Your task to perform on an android device: turn on javascript in the chrome app Image 0: 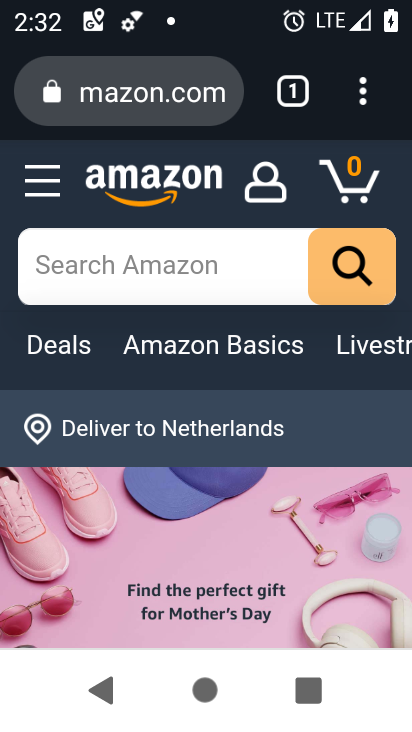
Step 0: click (354, 99)
Your task to perform on an android device: turn on javascript in the chrome app Image 1: 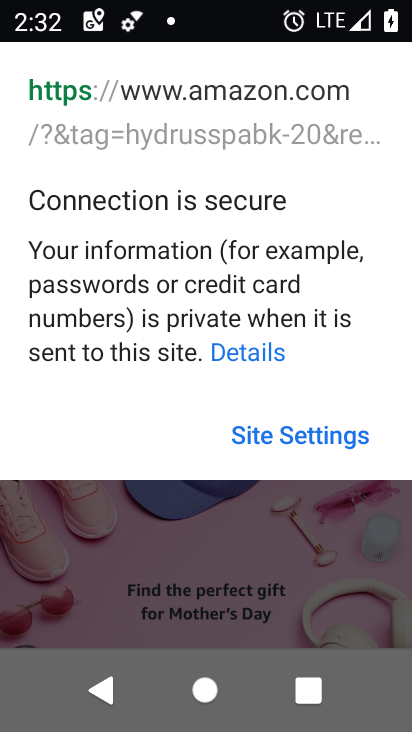
Step 1: click (211, 605)
Your task to perform on an android device: turn on javascript in the chrome app Image 2: 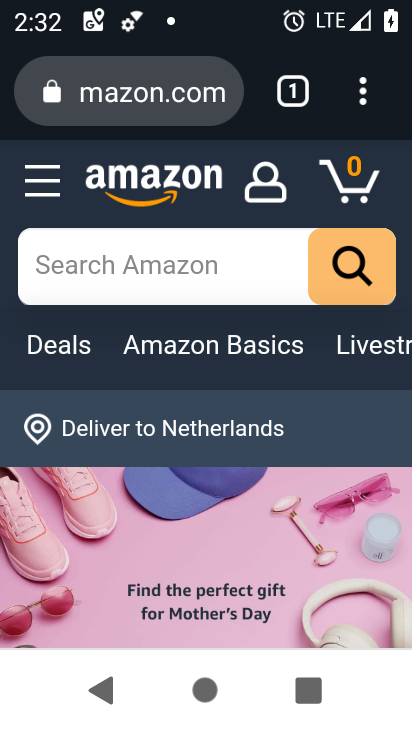
Step 2: click (351, 95)
Your task to perform on an android device: turn on javascript in the chrome app Image 3: 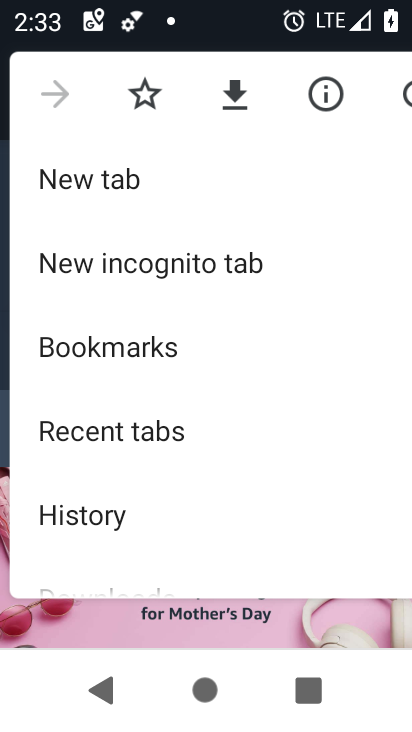
Step 3: drag from (197, 508) to (187, 328)
Your task to perform on an android device: turn on javascript in the chrome app Image 4: 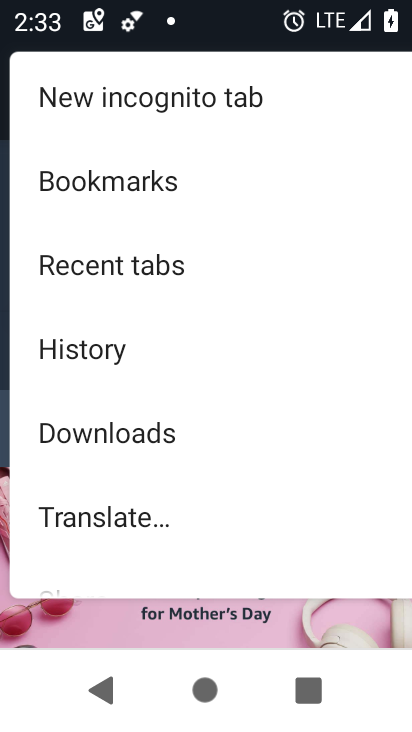
Step 4: drag from (153, 516) to (141, 378)
Your task to perform on an android device: turn on javascript in the chrome app Image 5: 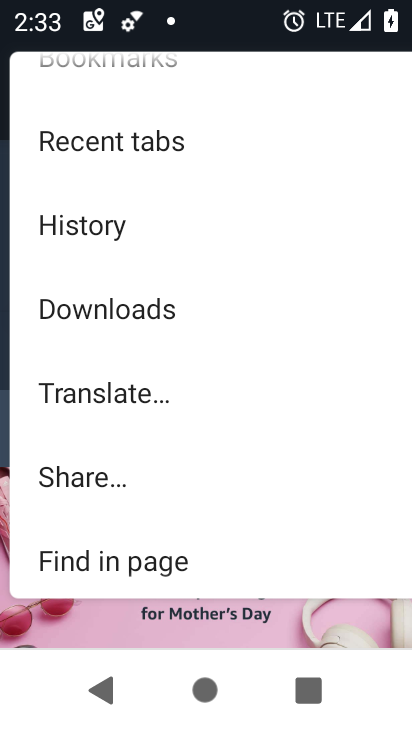
Step 5: drag from (158, 503) to (152, 384)
Your task to perform on an android device: turn on javascript in the chrome app Image 6: 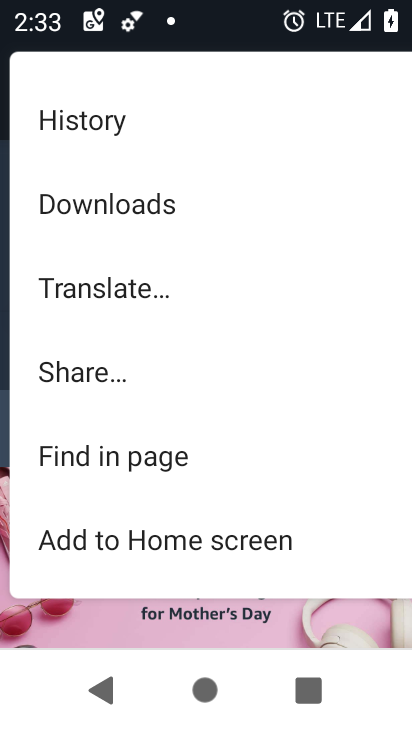
Step 6: drag from (150, 508) to (158, 398)
Your task to perform on an android device: turn on javascript in the chrome app Image 7: 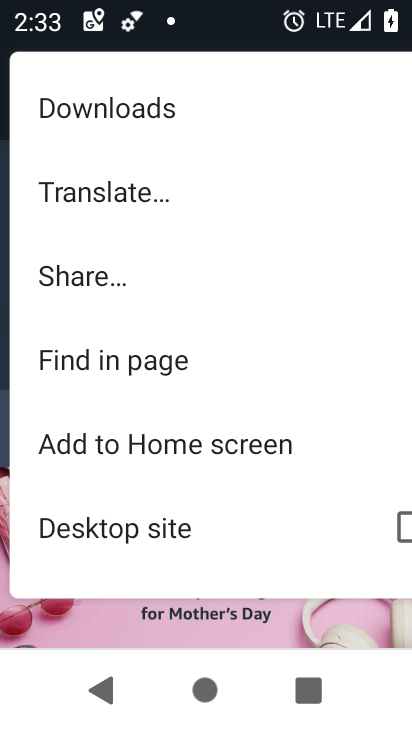
Step 7: drag from (165, 511) to (179, 411)
Your task to perform on an android device: turn on javascript in the chrome app Image 8: 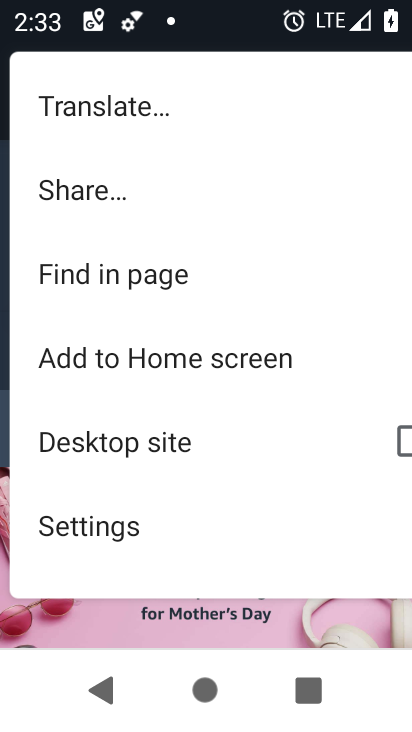
Step 8: click (157, 519)
Your task to perform on an android device: turn on javascript in the chrome app Image 9: 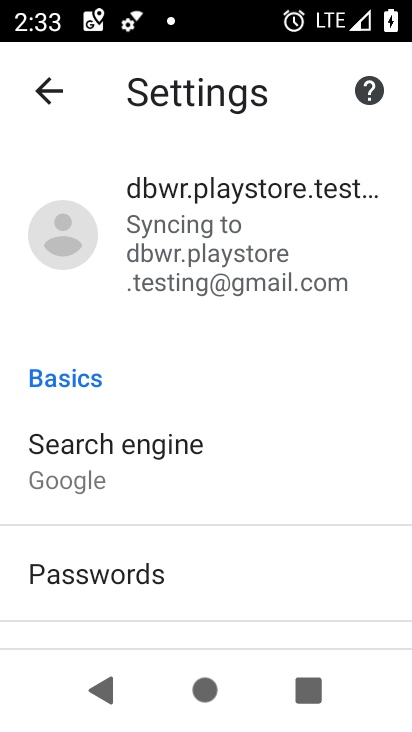
Step 9: drag from (163, 578) to (176, 405)
Your task to perform on an android device: turn on javascript in the chrome app Image 10: 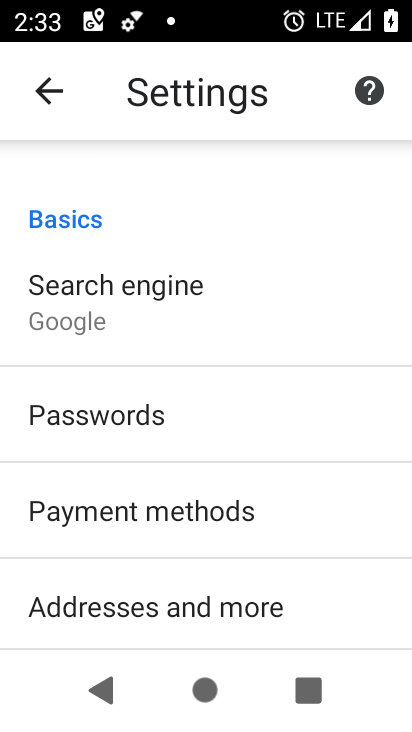
Step 10: drag from (130, 570) to (131, 413)
Your task to perform on an android device: turn on javascript in the chrome app Image 11: 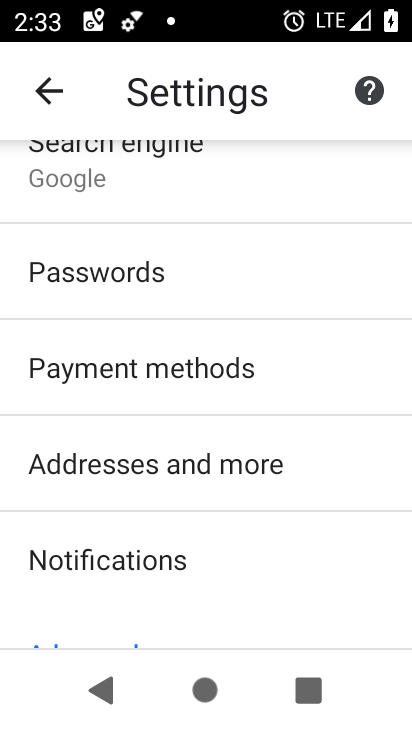
Step 11: drag from (151, 572) to (168, 416)
Your task to perform on an android device: turn on javascript in the chrome app Image 12: 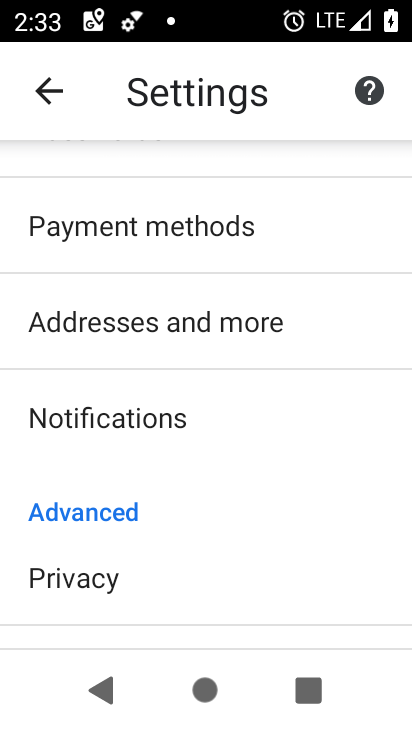
Step 12: drag from (159, 549) to (215, 381)
Your task to perform on an android device: turn on javascript in the chrome app Image 13: 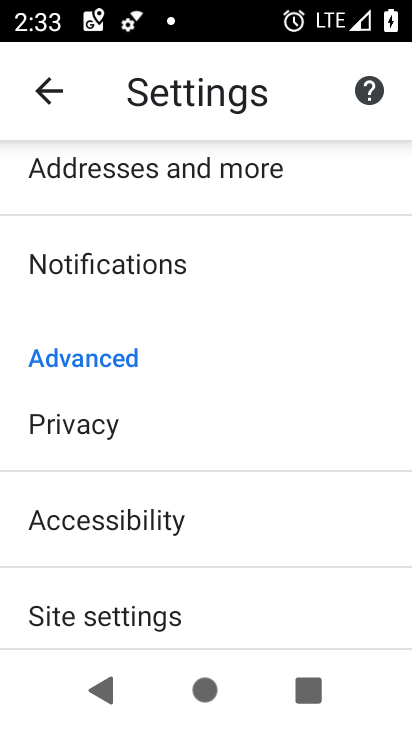
Step 13: click (136, 611)
Your task to perform on an android device: turn on javascript in the chrome app Image 14: 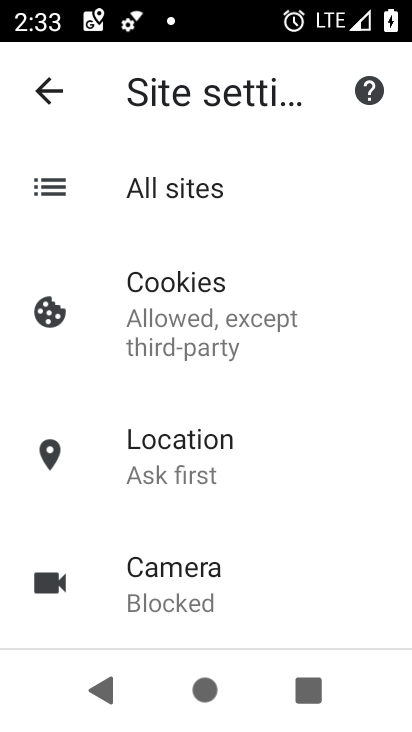
Step 14: drag from (202, 608) to (185, 493)
Your task to perform on an android device: turn on javascript in the chrome app Image 15: 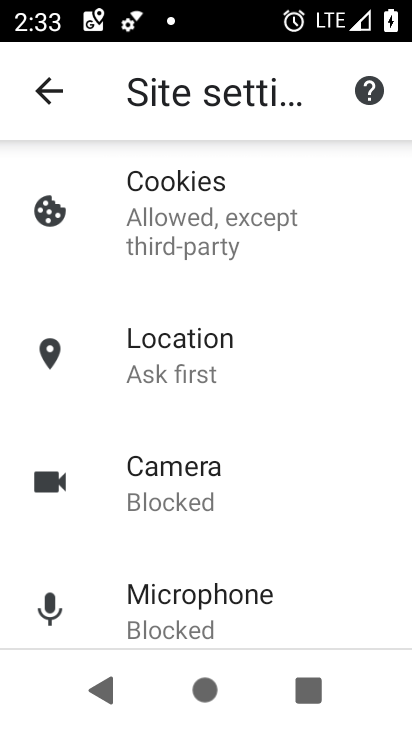
Step 15: drag from (194, 589) to (181, 472)
Your task to perform on an android device: turn on javascript in the chrome app Image 16: 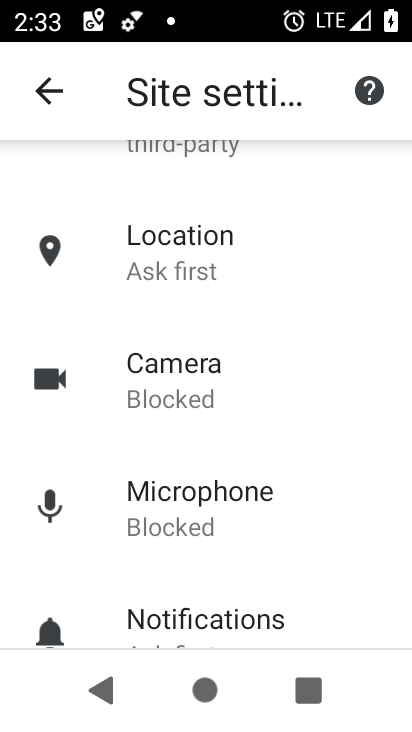
Step 16: drag from (199, 582) to (224, 425)
Your task to perform on an android device: turn on javascript in the chrome app Image 17: 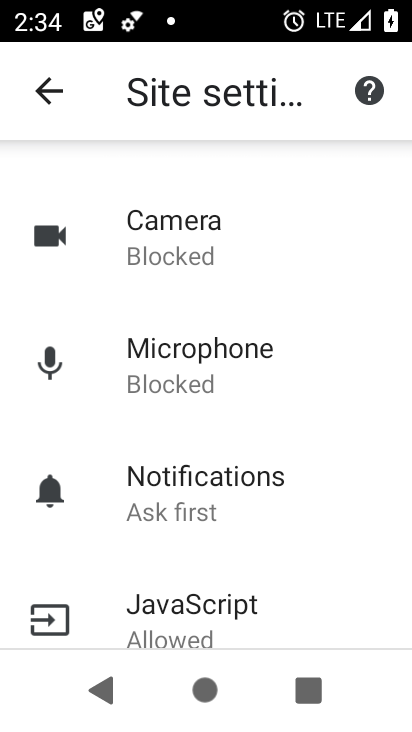
Step 17: click (250, 604)
Your task to perform on an android device: turn on javascript in the chrome app Image 18: 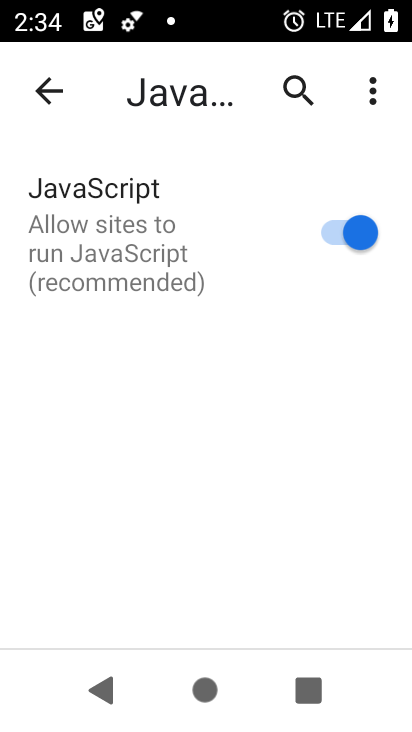
Step 18: task complete